Your task to perform on an android device: open app "Yahoo Mail" (install if not already installed) Image 0: 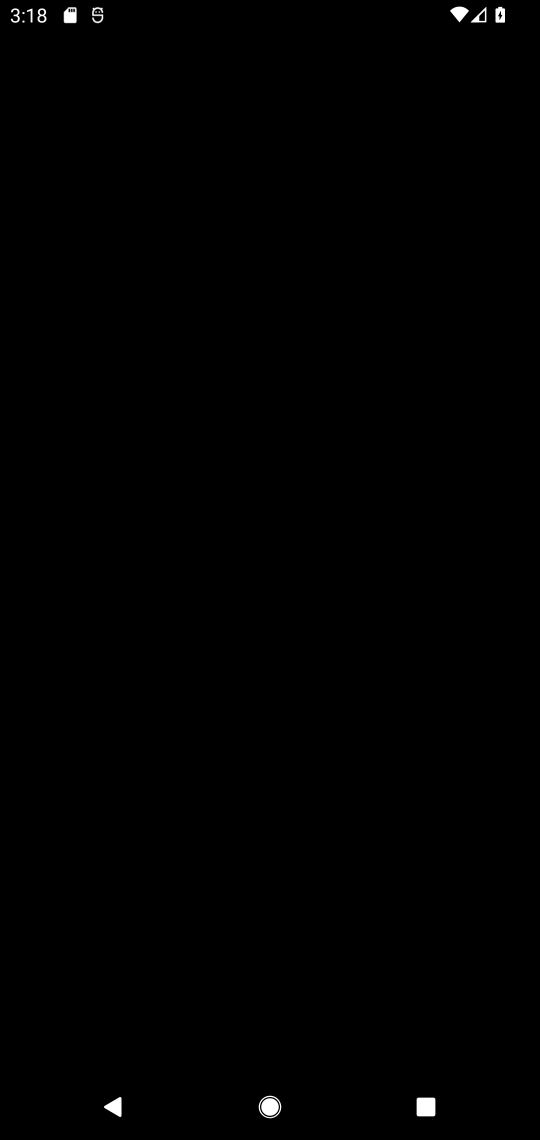
Step 0: press home button
Your task to perform on an android device: open app "Yahoo Mail" (install if not already installed) Image 1: 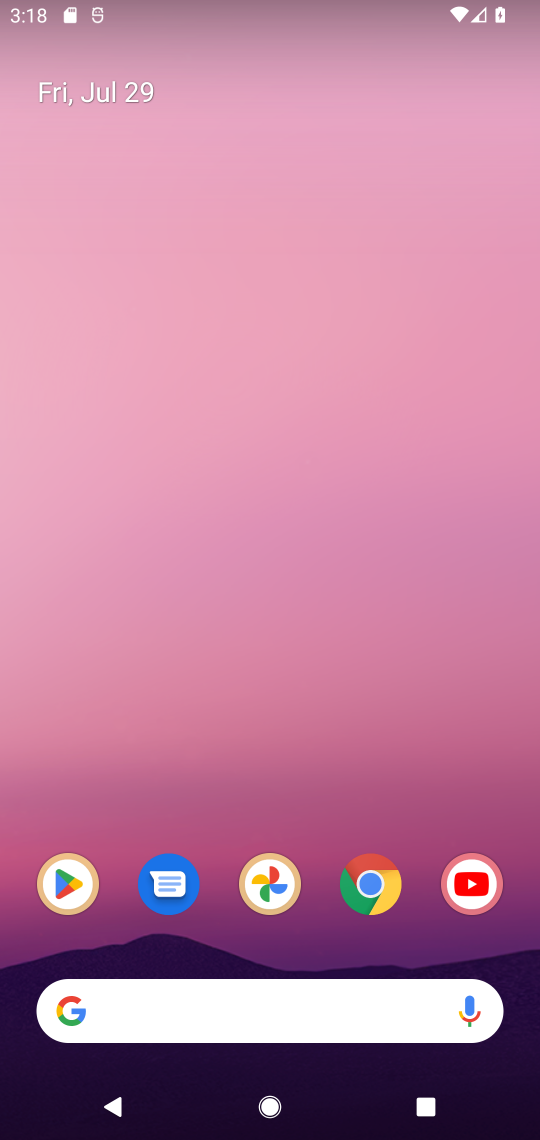
Step 1: drag from (339, 816) to (335, 2)
Your task to perform on an android device: open app "Yahoo Mail" (install if not already installed) Image 2: 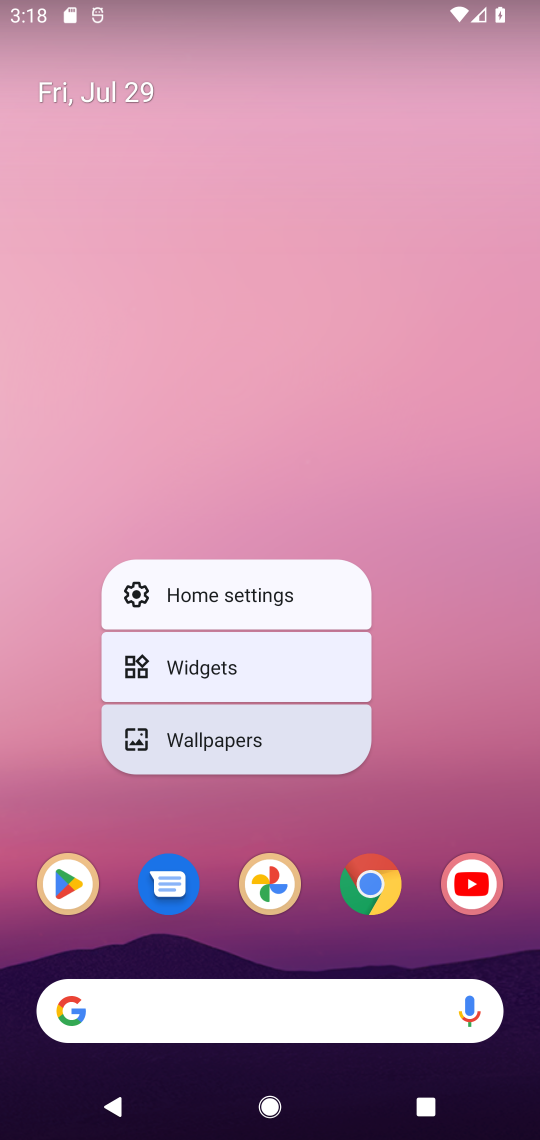
Step 2: click (325, 473)
Your task to perform on an android device: open app "Yahoo Mail" (install if not already installed) Image 3: 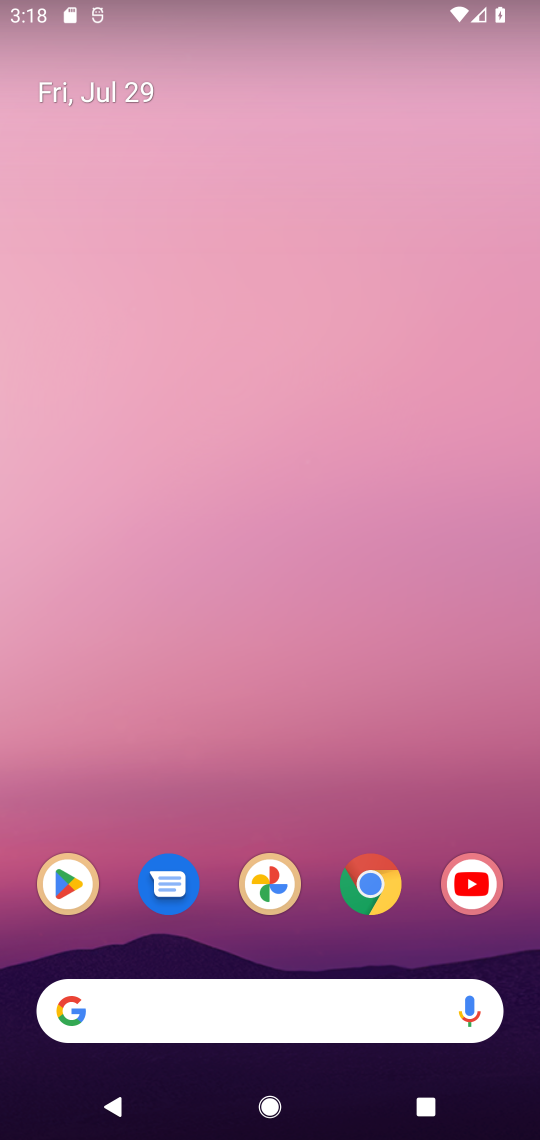
Step 3: click (74, 884)
Your task to perform on an android device: open app "Yahoo Mail" (install if not already installed) Image 4: 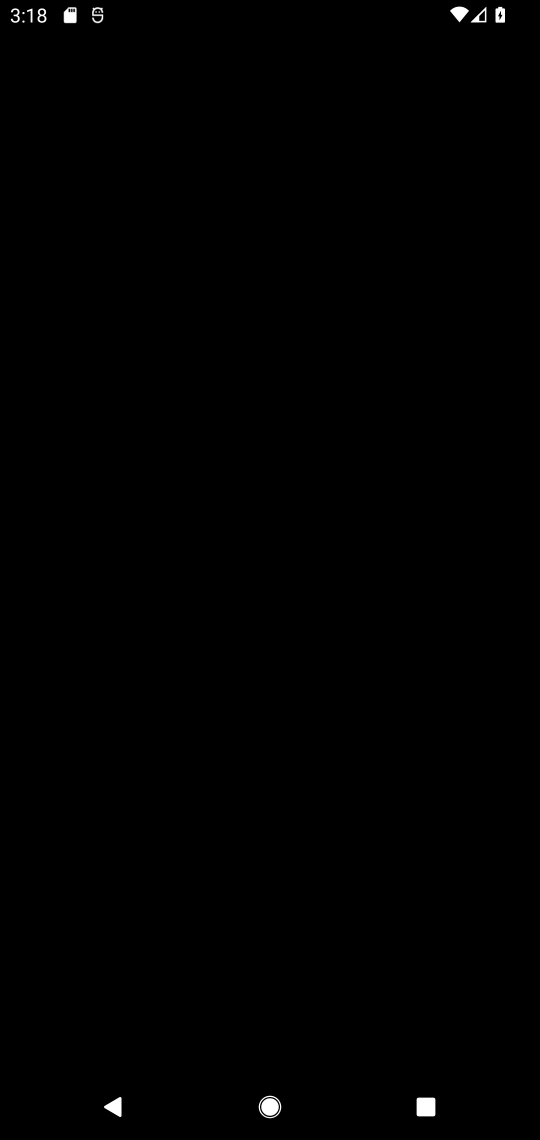
Step 4: press home button
Your task to perform on an android device: open app "Yahoo Mail" (install if not already installed) Image 5: 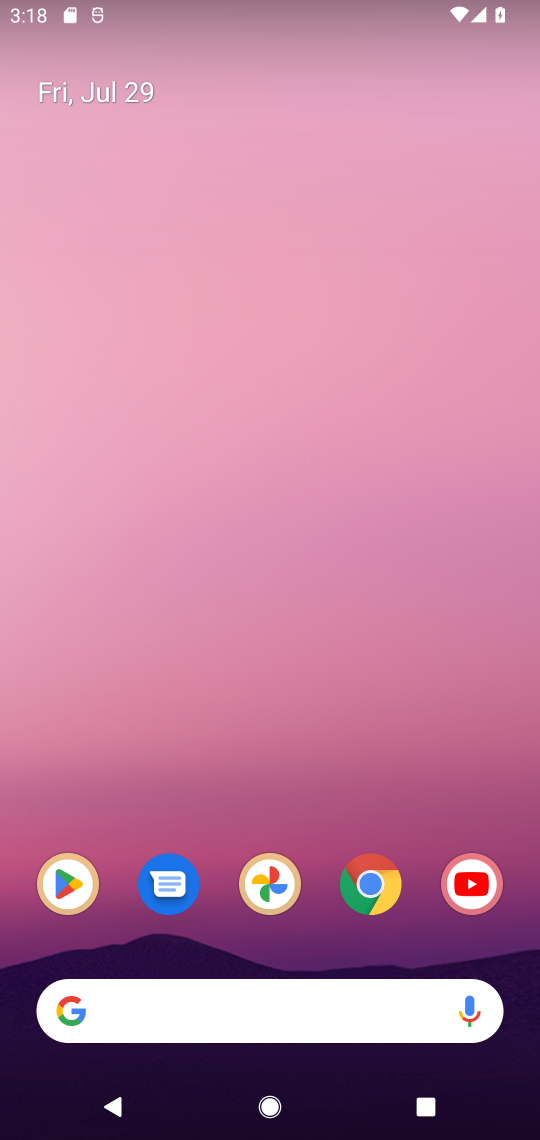
Step 5: click (319, 792)
Your task to perform on an android device: open app "Yahoo Mail" (install if not already installed) Image 6: 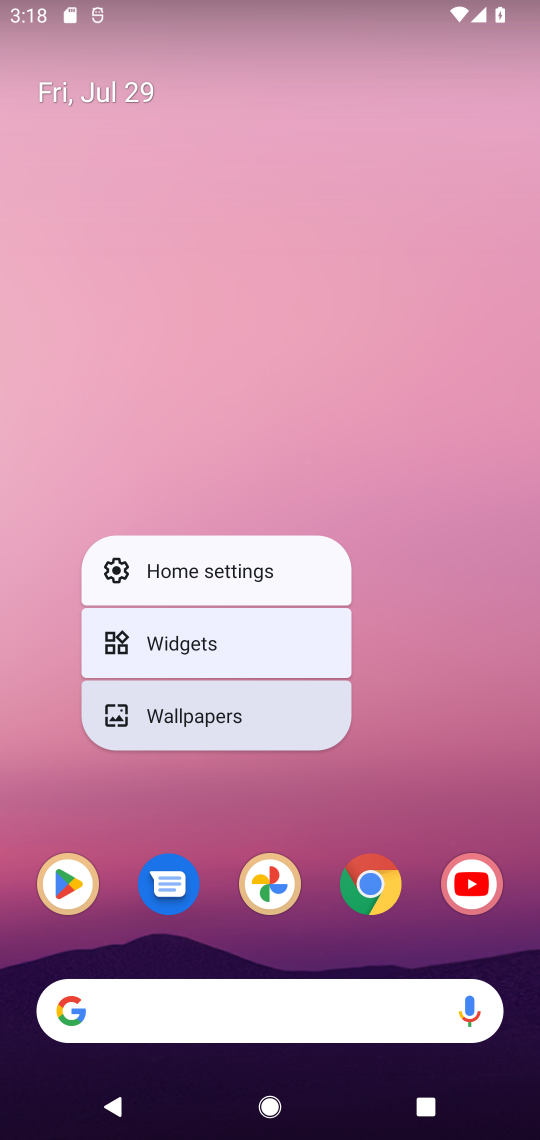
Step 6: click (260, 999)
Your task to perform on an android device: open app "Yahoo Mail" (install if not already installed) Image 7: 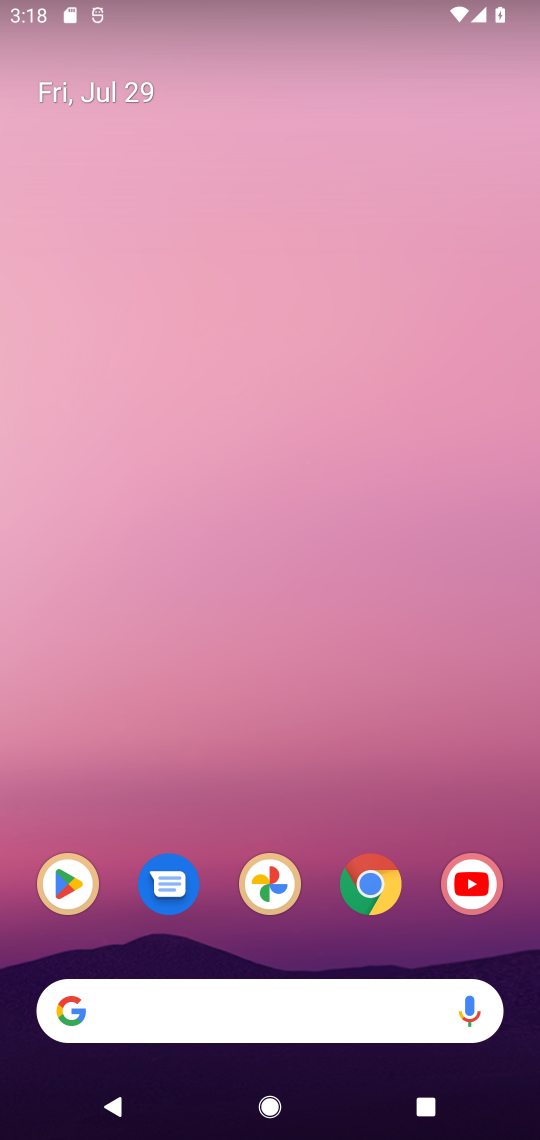
Step 7: click (260, 999)
Your task to perform on an android device: open app "Yahoo Mail" (install if not already installed) Image 8: 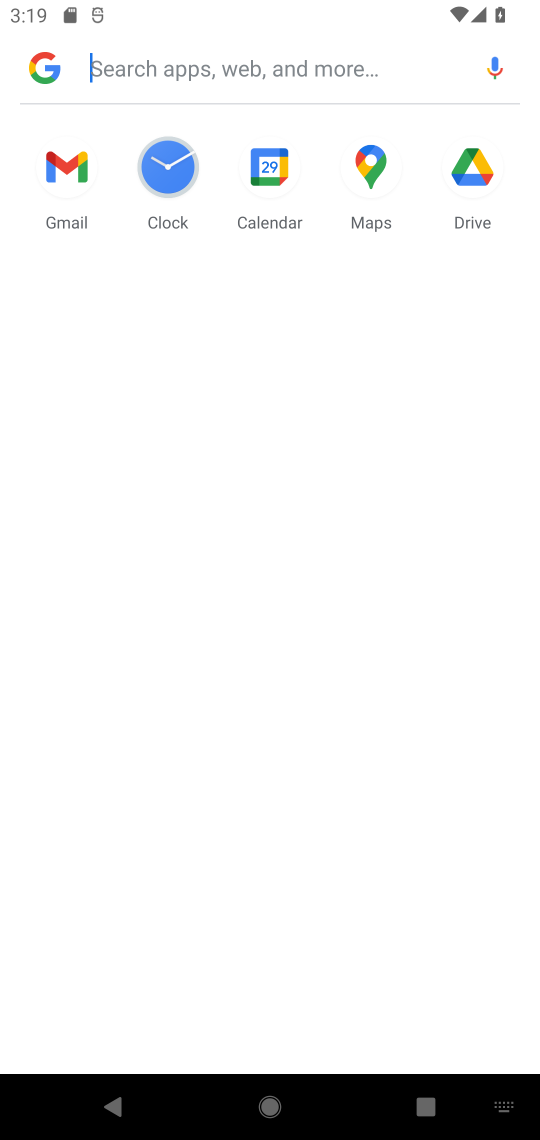
Step 8: type "yahoo mail.com"
Your task to perform on an android device: open app "Yahoo Mail" (install if not already installed) Image 9: 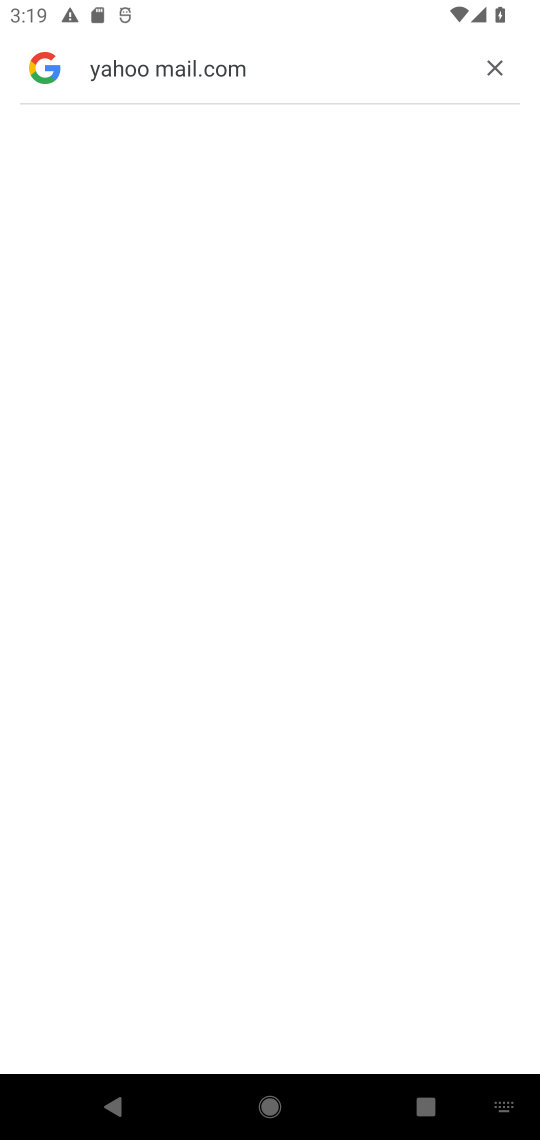
Step 9: task complete